Your task to perform on an android device: turn off priority inbox in the gmail app Image 0: 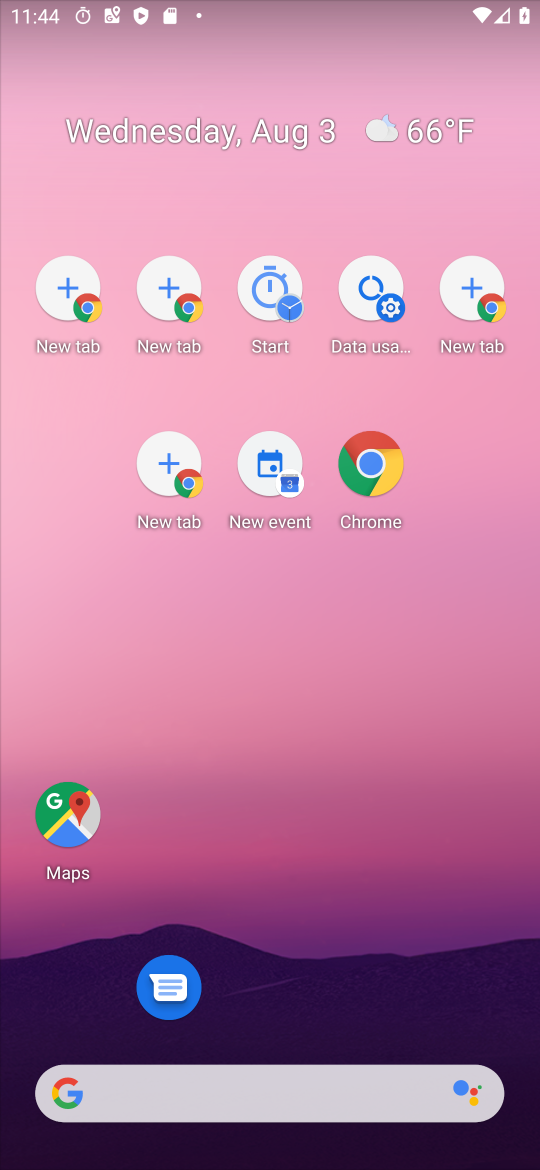
Step 0: drag from (348, 795) to (287, 431)
Your task to perform on an android device: turn off priority inbox in the gmail app Image 1: 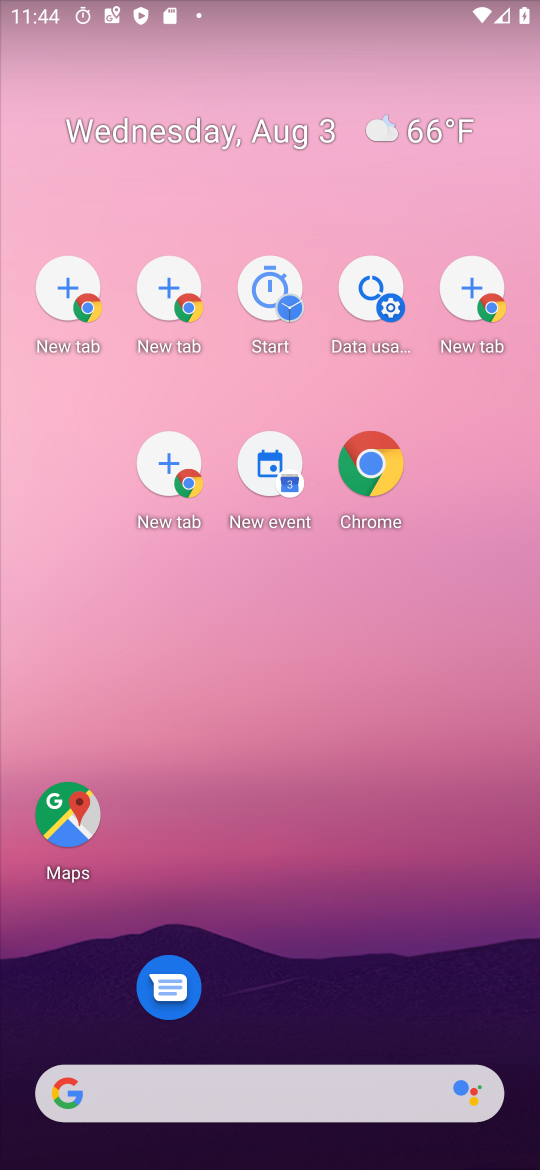
Step 1: drag from (285, 445) to (272, 359)
Your task to perform on an android device: turn off priority inbox in the gmail app Image 2: 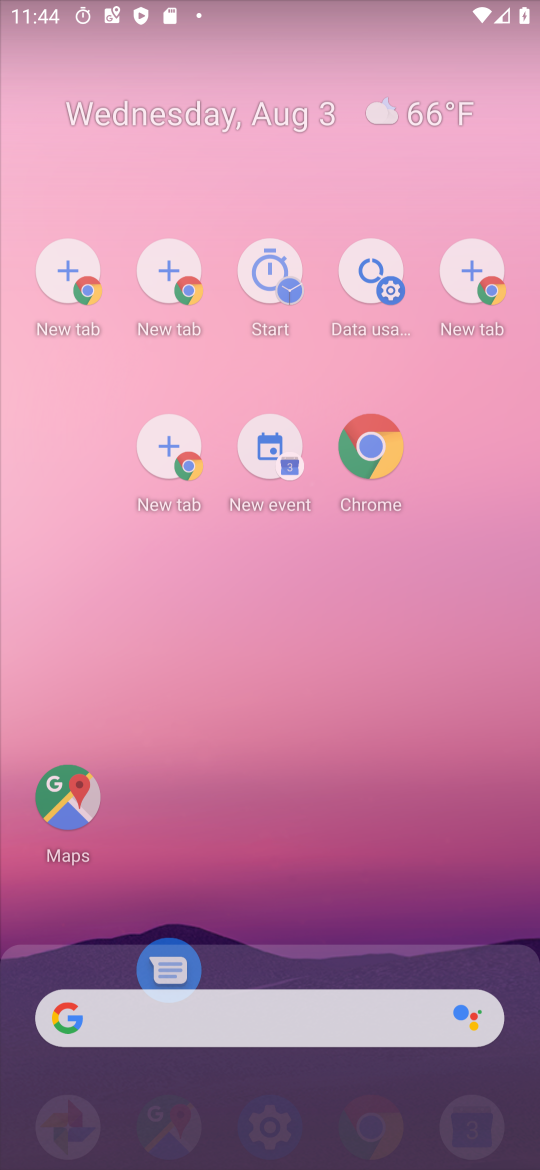
Step 2: drag from (313, 979) to (248, 55)
Your task to perform on an android device: turn off priority inbox in the gmail app Image 3: 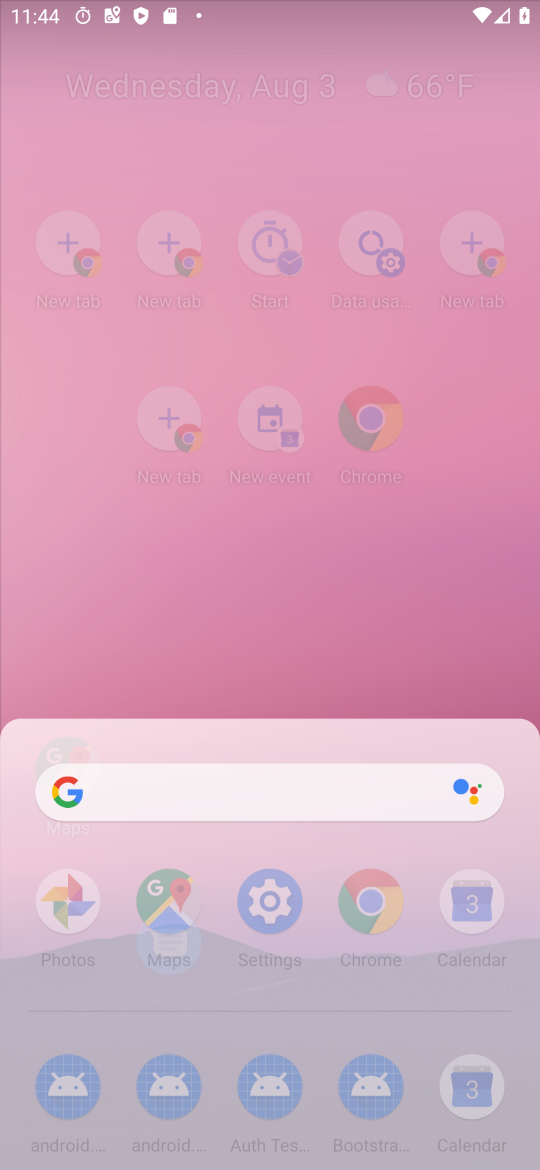
Step 3: drag from (365, 692) to (309, 11)
Your task to perform on an android device: turn off priority inbox in the gmail app Image 4: 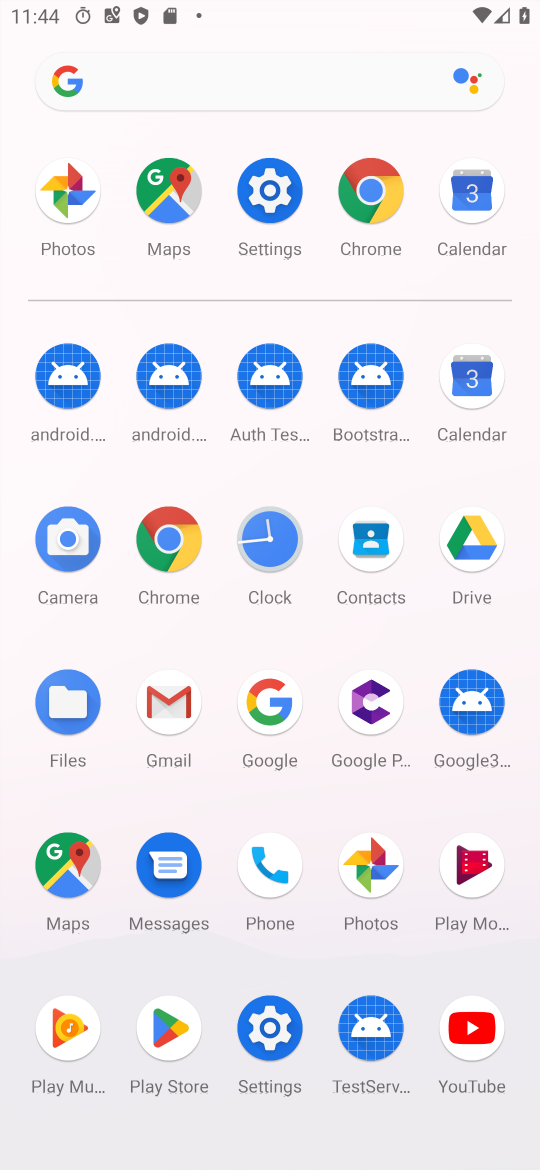
Step 4: click (178, 696)
Your task to perform on an android device: turn off priority inbox in the gmail app Image 5: 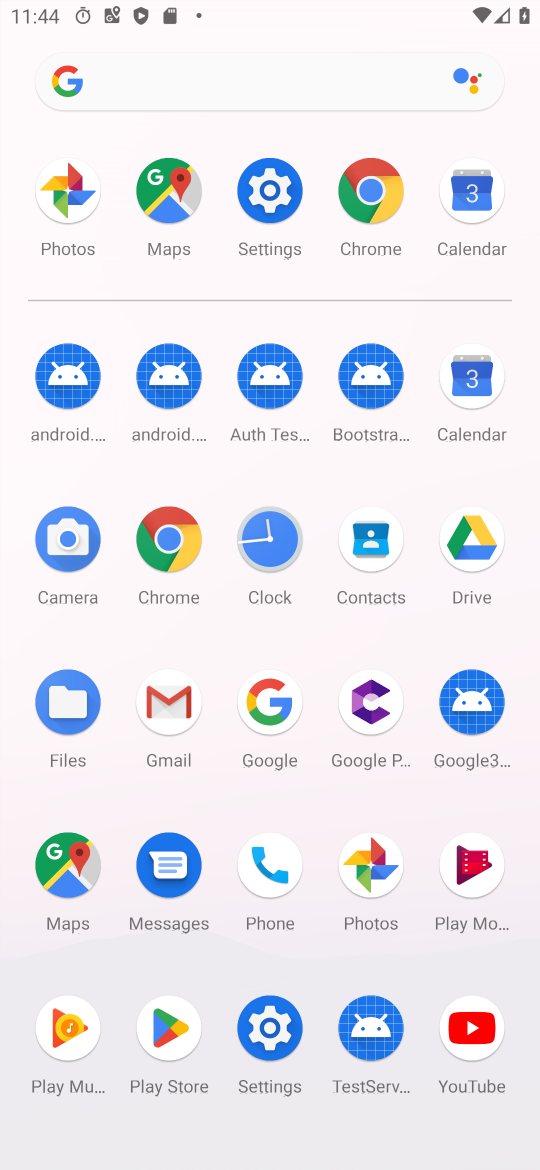
Step 5: click (176, 696)
Your task to perform on an android device: turn off priority inbox in the gmail app Image 6: 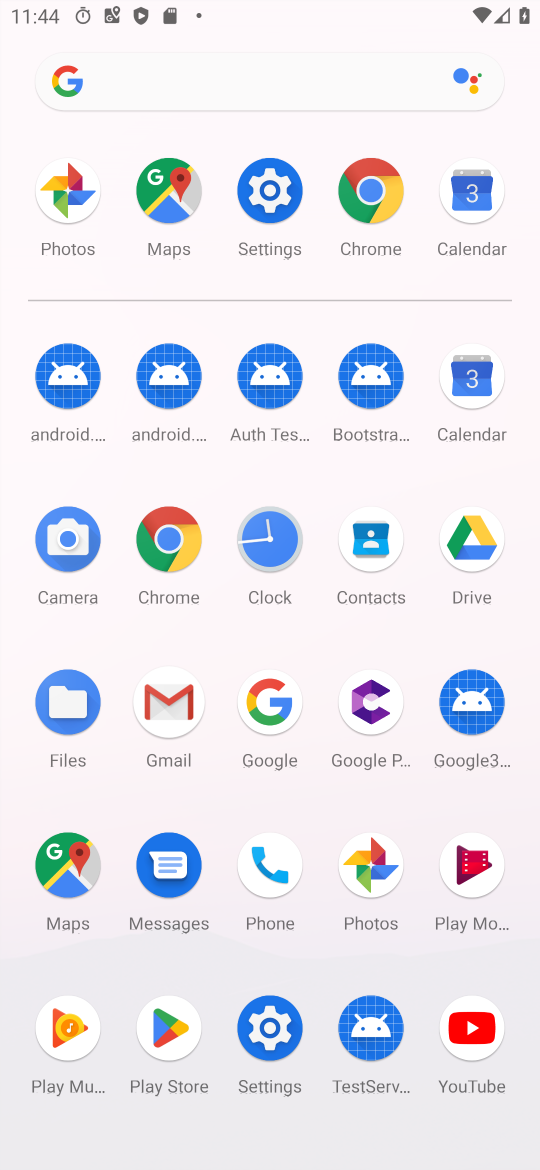
Step 6: click (175, 697)
Your task to perform on an android device: turn off priority inbox in the gmail app Image 7: 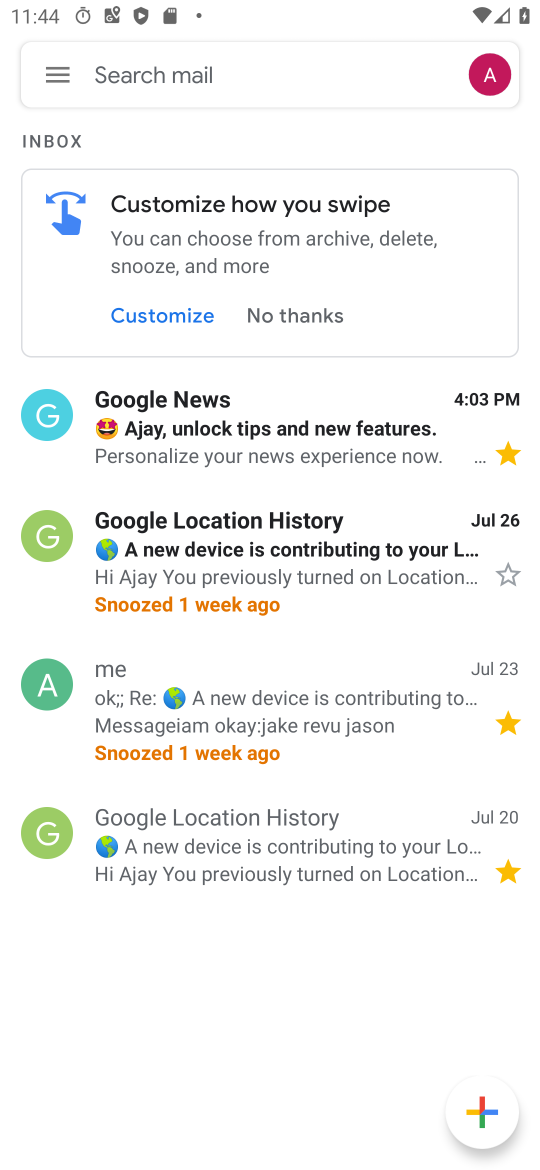
Step 7: click (53, 81)
Your task to perform on an android device: turn off priority inbox in the gmail app Image 8: 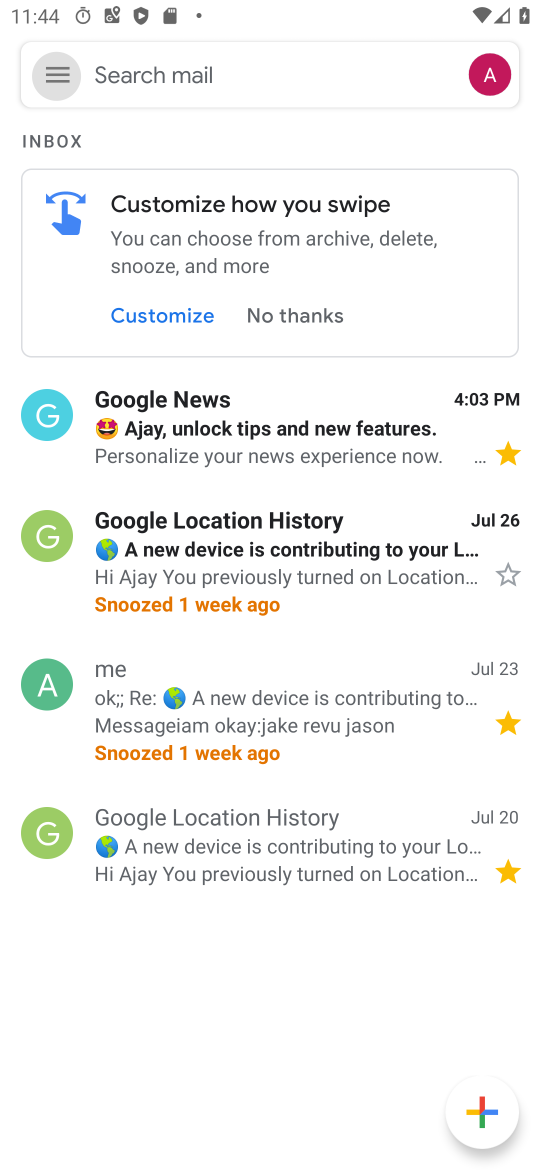
Step 8: click (55, 76)
Your task to perform on an android device: turn off priority inbox in the gmail app Image 9: 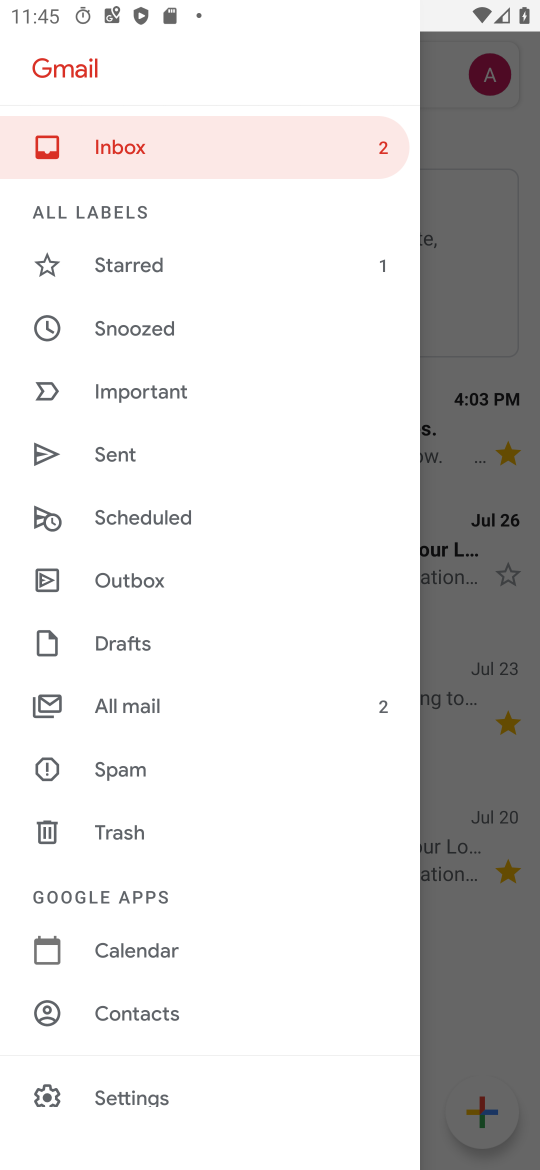
Step 9: drag from (174, 865) to (119, 215)
Your task to perform on an android device: turn off priority inbox in the gmail app Image 10: 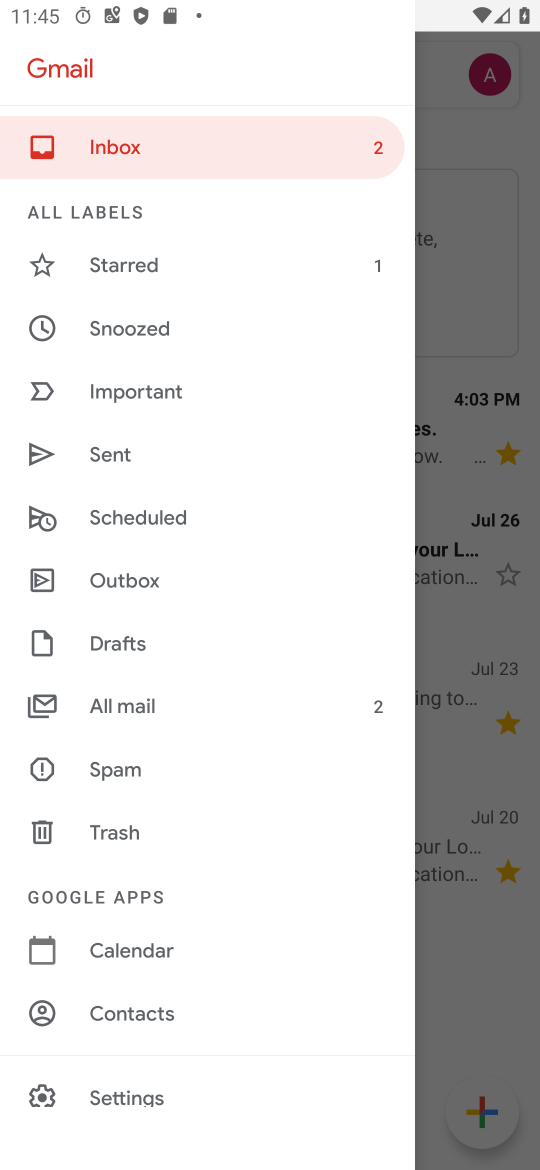
Step 10: drag from (183, 734) to (203, 203)
Your task to perform on an android device: turn off priority inbox in the gmail app Image 11: 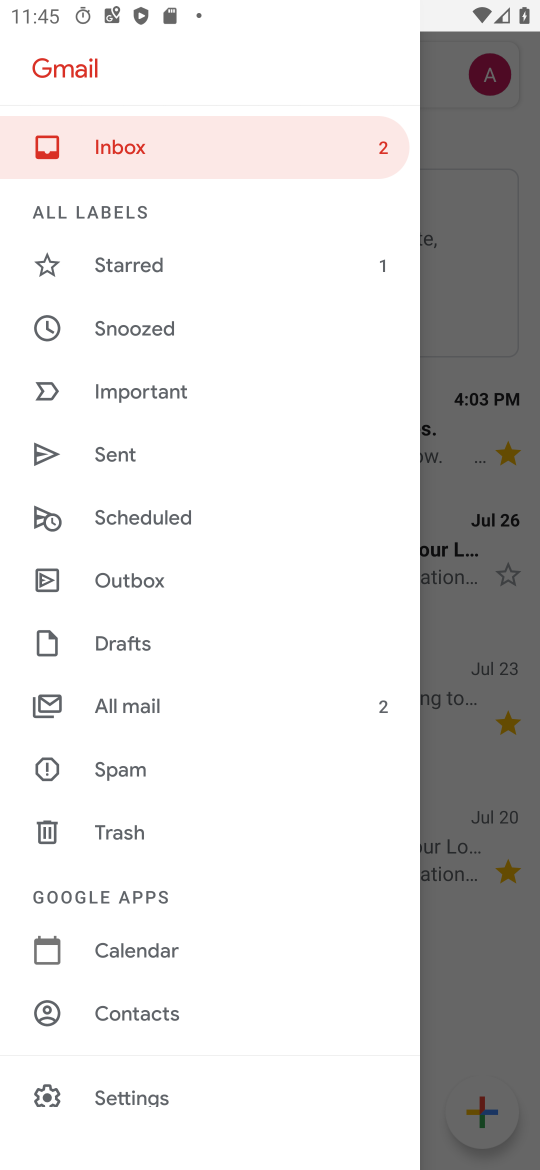
Step 11: drag from (199, 950) to (215, 685)
Your task to perform on an android device: turn off priority inbox in the gmail app Image 12: 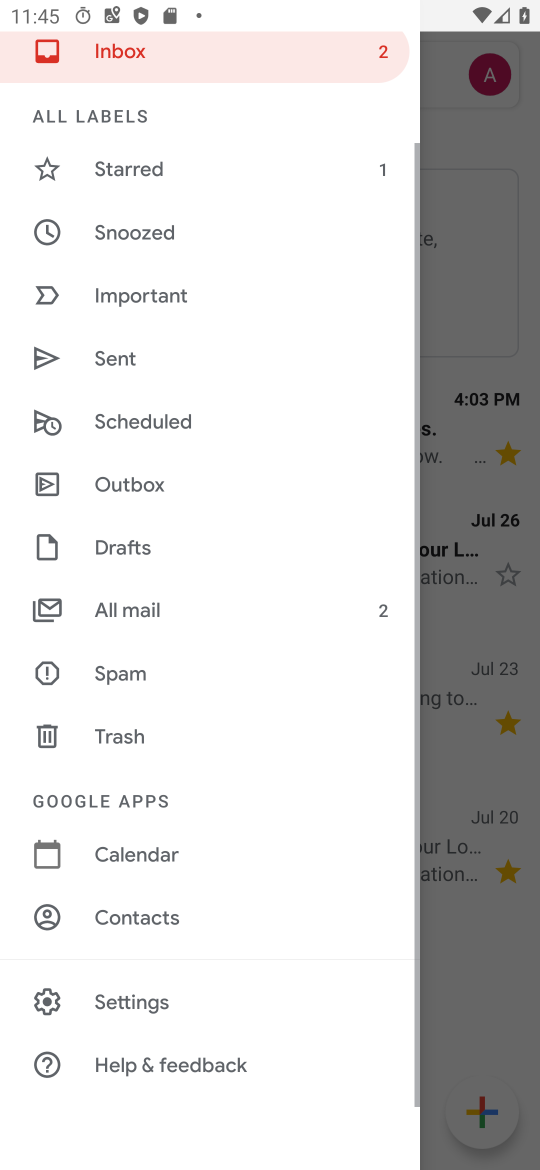
Step 12: click (119, 1088)
Your task to perform on an android device: turn off priority inbox in the gmail app Image 13: 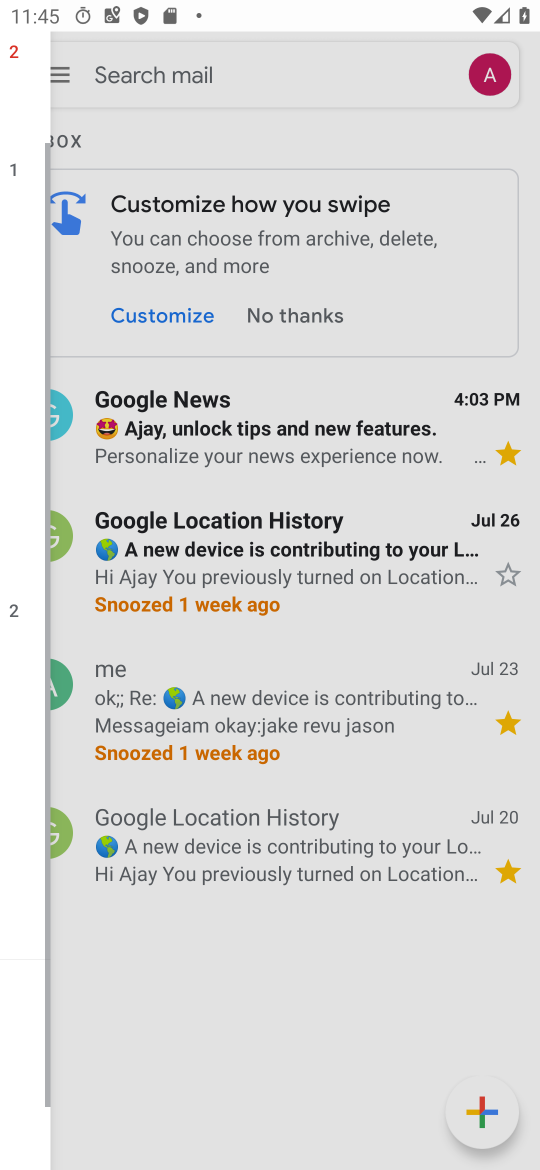
Step 13: click (135, 989)
Your task to perform on an android device: turn off priority inbox in the gmail app Image 14: 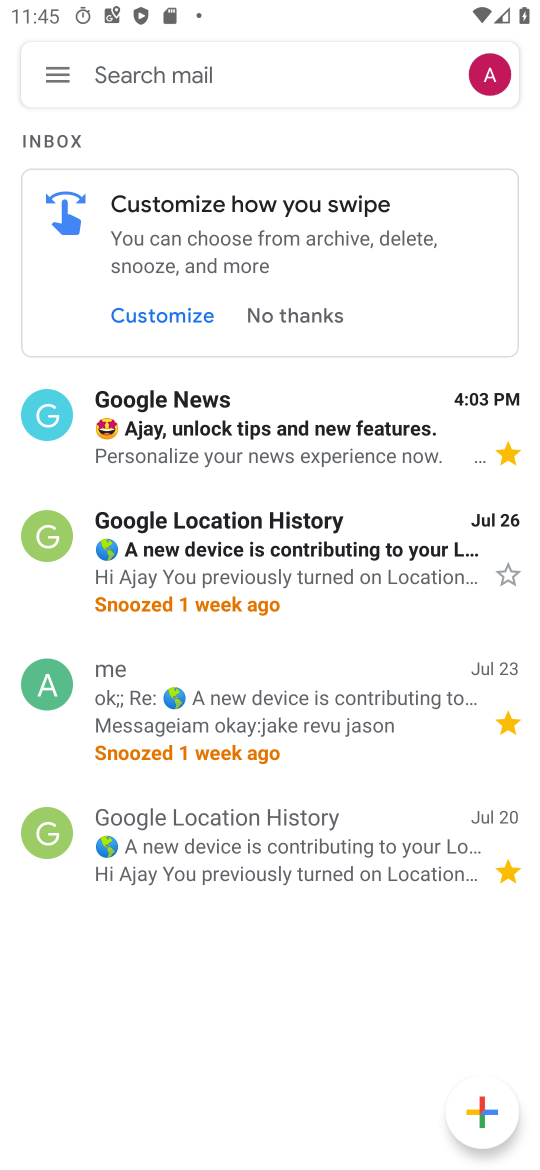
Step 14: click (50, 78)
Your task to perform on an android device: turn off priority inbox in the gmail app Image 15: 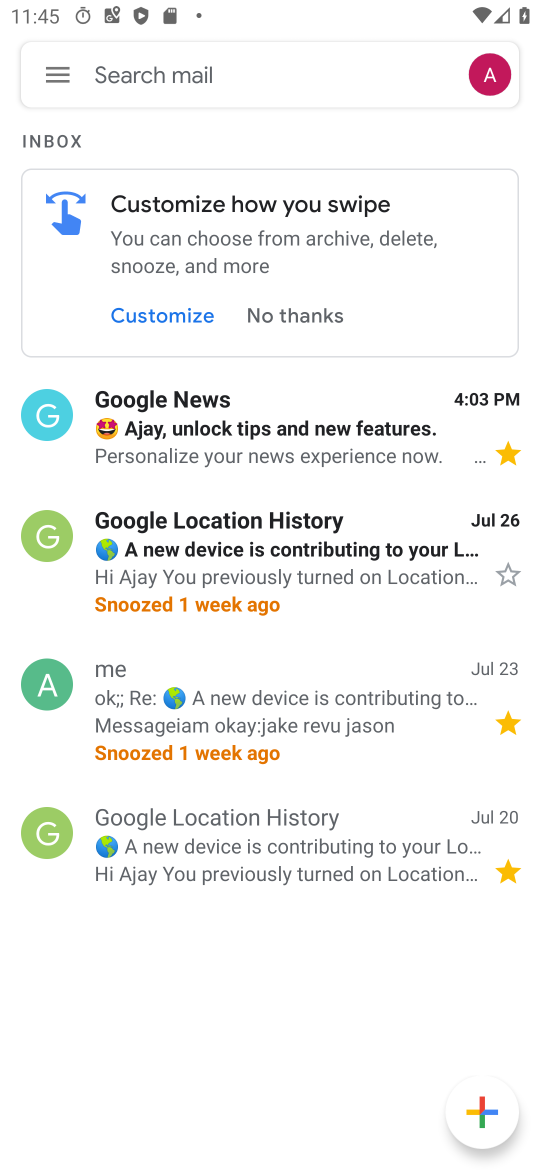
Step 15: click (61, 73)
Your task to perform on an android device: turn off priority inbox in the gmail app Image 16: 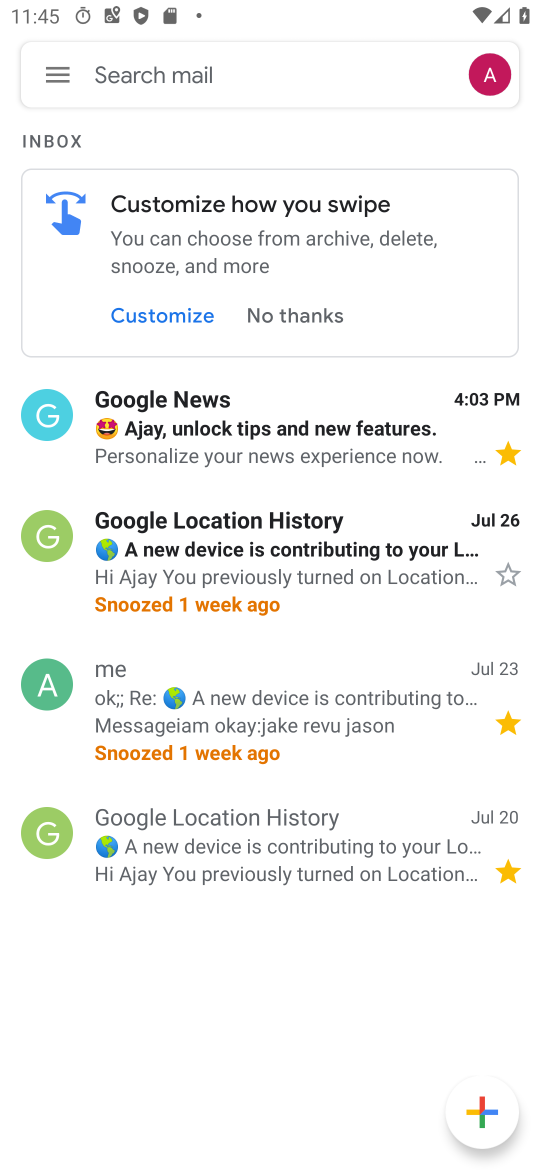
Step 16: click (63, 71)
Your task to perform on an android device: turn off priority inbox in the gmail app Image 17: 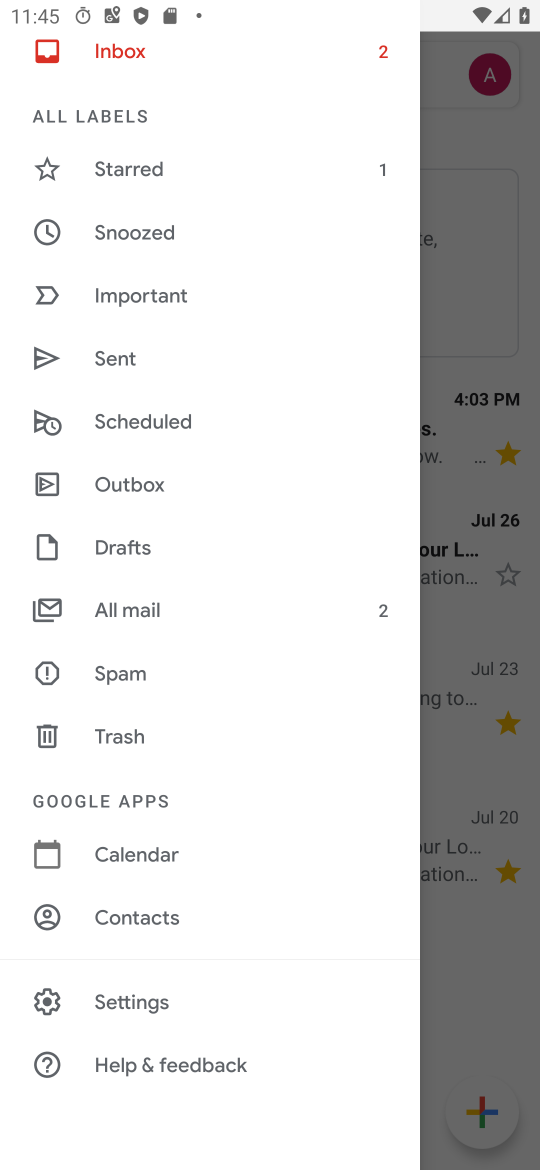
Step 17: click (145, 1002)
Your task to perform on an android device: turn off priority inbox in the gmail app Image 18: 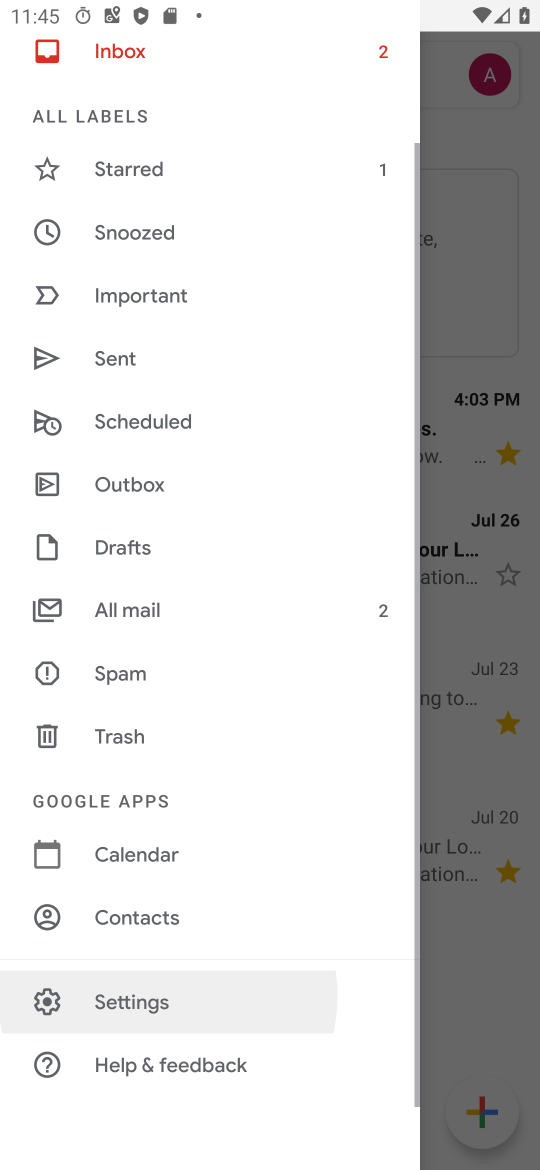
Step 18: click (145, 1002)
Your task to perform on an android device: turn off priority inbox in the gmail app Image 19: 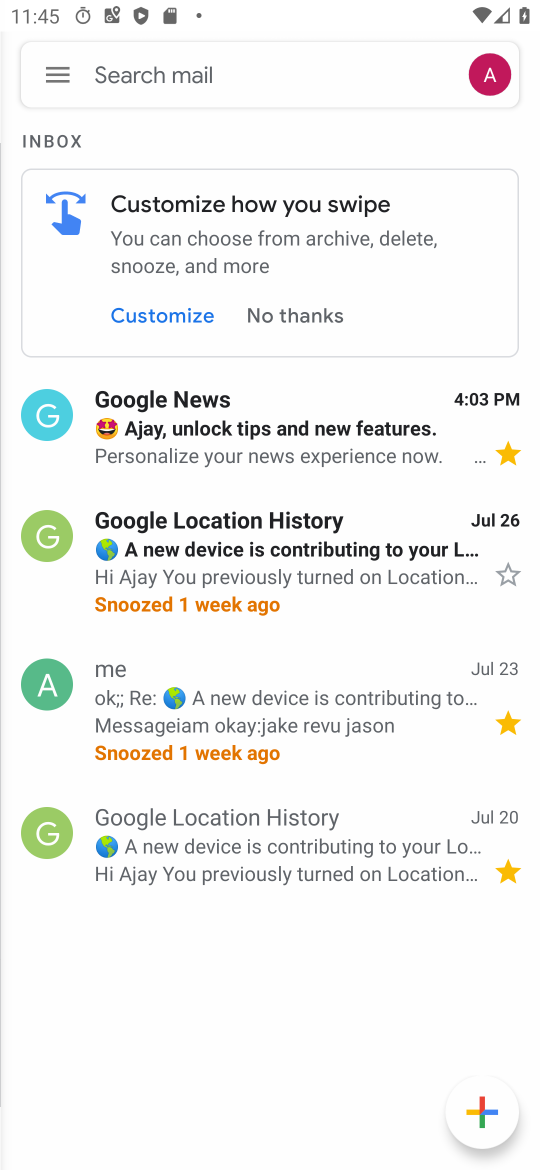
Step 19: click (145, 1002)
Your task to perform on an android device: turn off priority inbox in the gmail app Image 20: 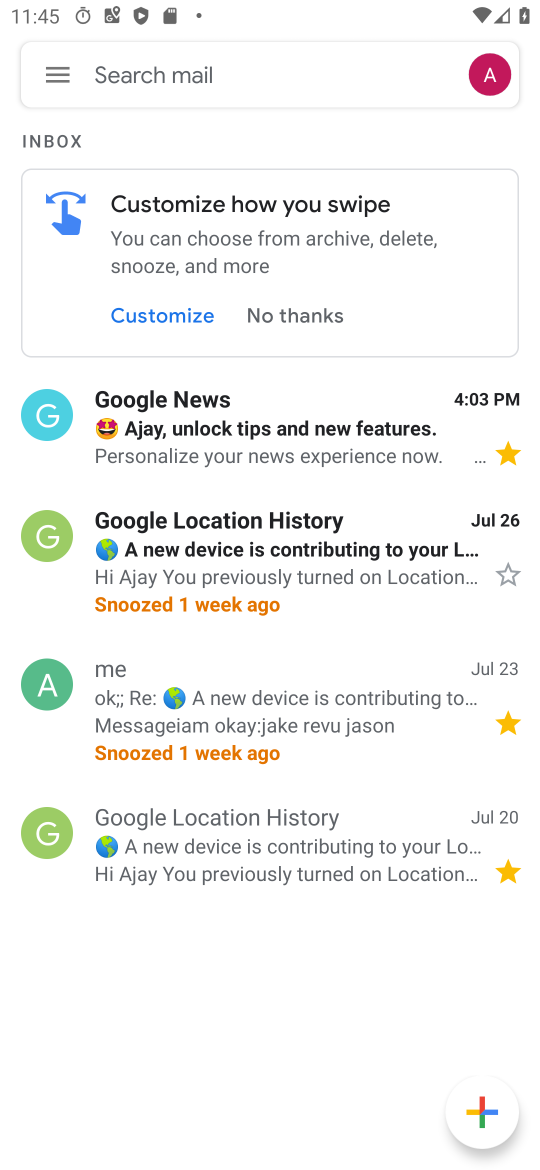
Step 20: click (145, 1002)
Your task to perform on an android device: turn off priority inbox in the gmail app Image 21: 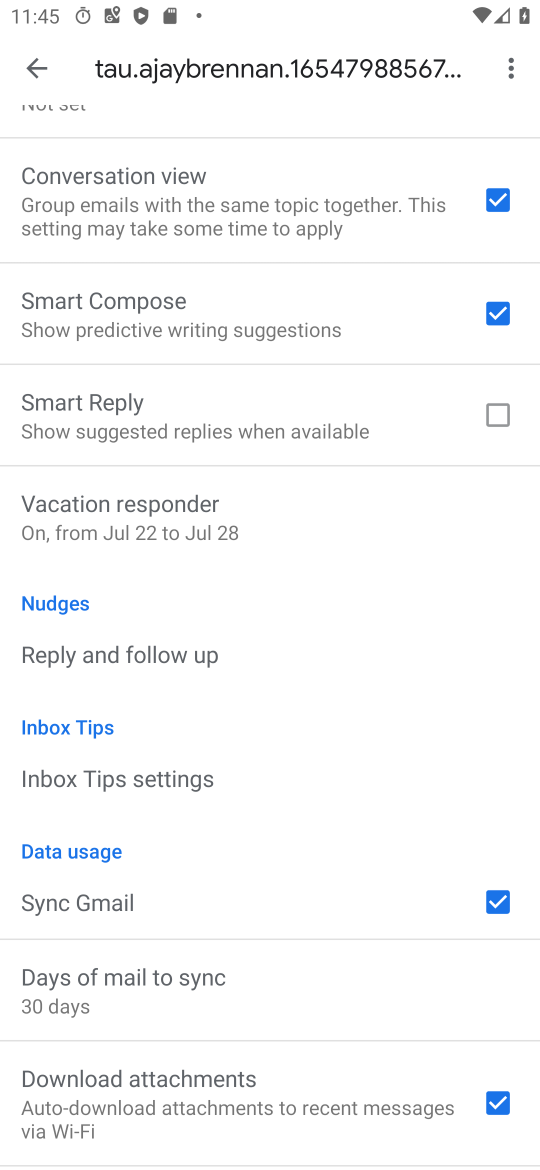
Step 21: drag from (167, 854) to (103, 408)
Your task to perform on an android device: turn off priority inbox in the gmail app Image 22: 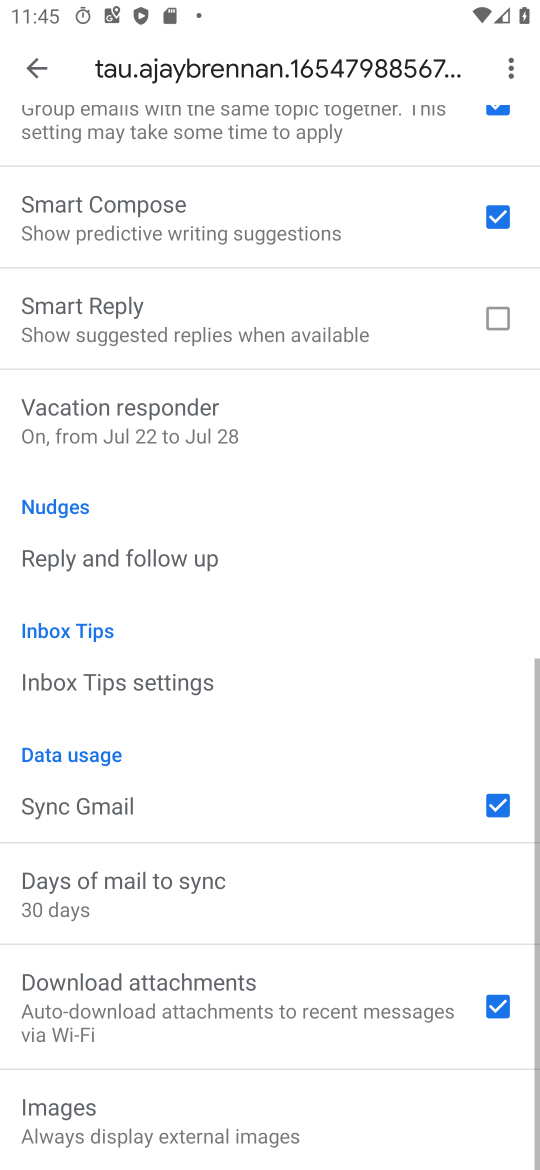
Step 22: drag from (134, 769) to (143, 354)
Your task to perform on an android device: turn off priority inbox in the gmail app Image 23: 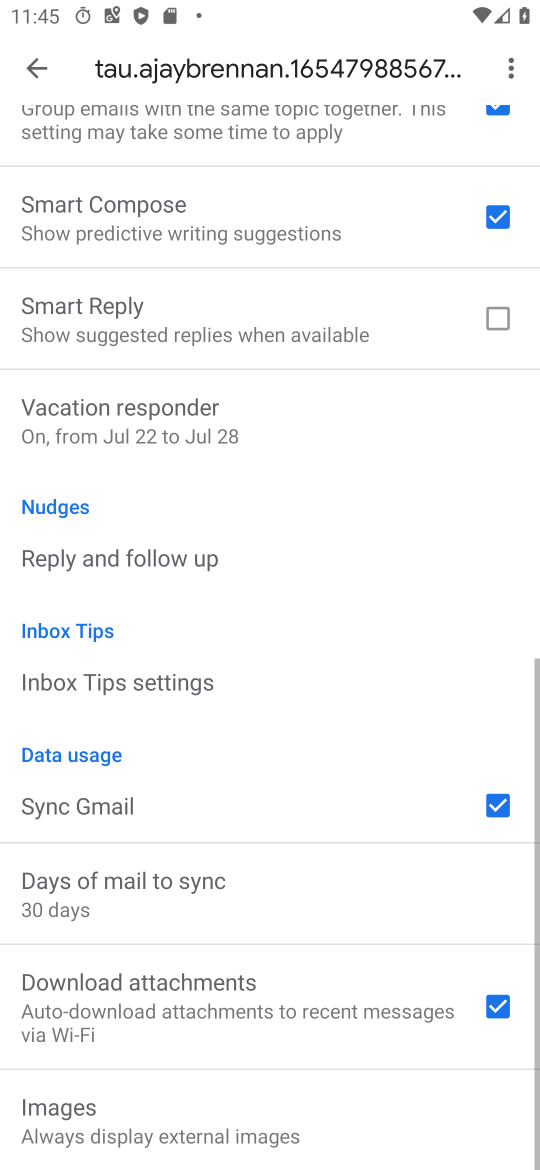
Step 23: drag from (153, 265) to (127, 928)
Your task to perform on an android device: turn off priority inbox in the gmail app Image 24: 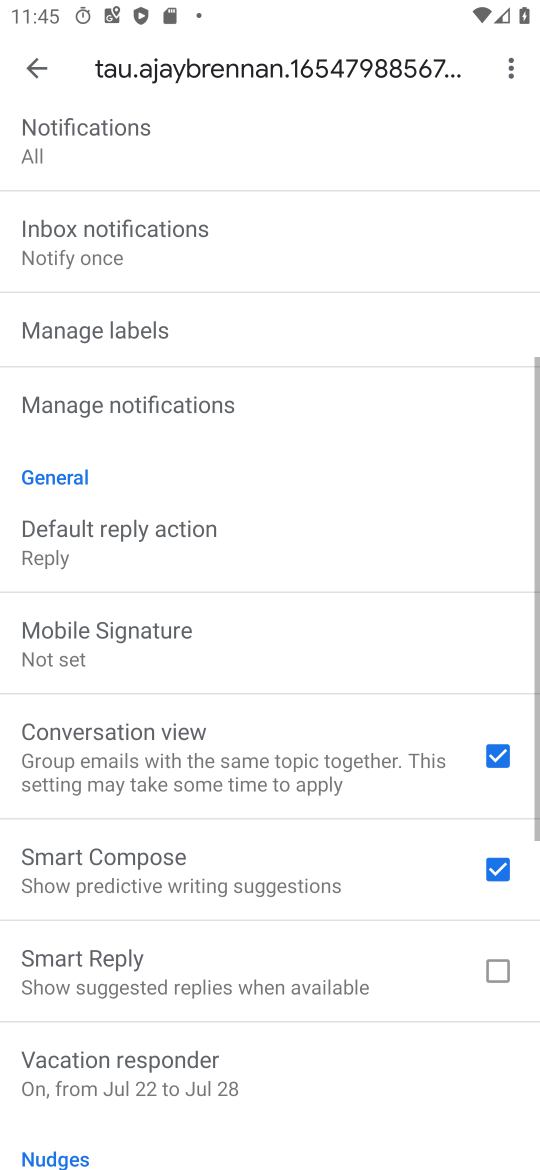
Step 24: drag from (157, 479) to (193, 1161)
Your task to perform on an android device: turn off priority inbox in the gmail app Image 25: 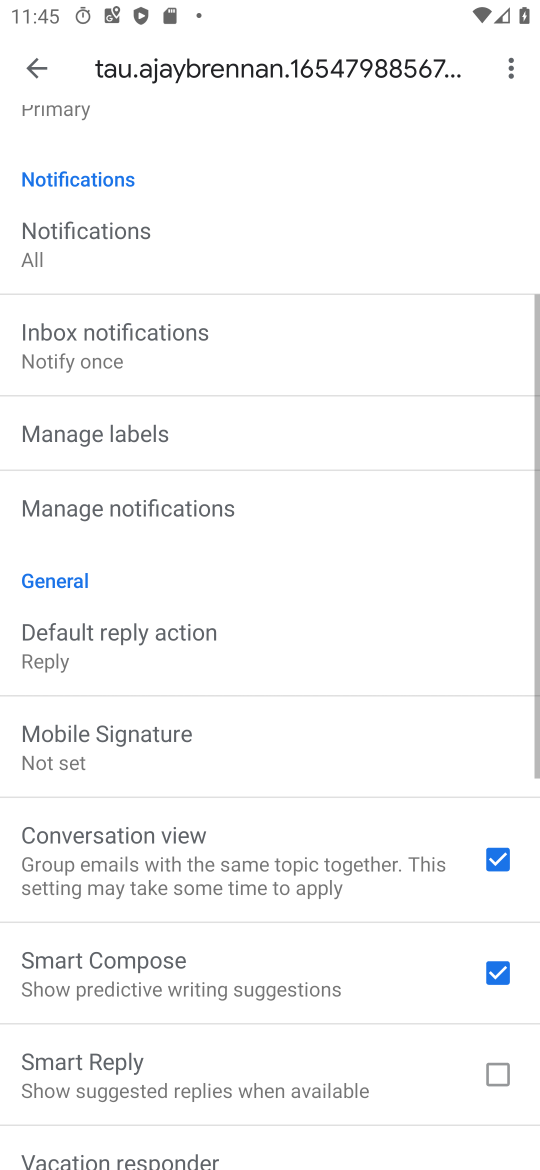
Step 25: drag from (196, 660) to (243, 1163)
Your task to perform on an android device: turn off priority inbox in the gmail app Image 26: 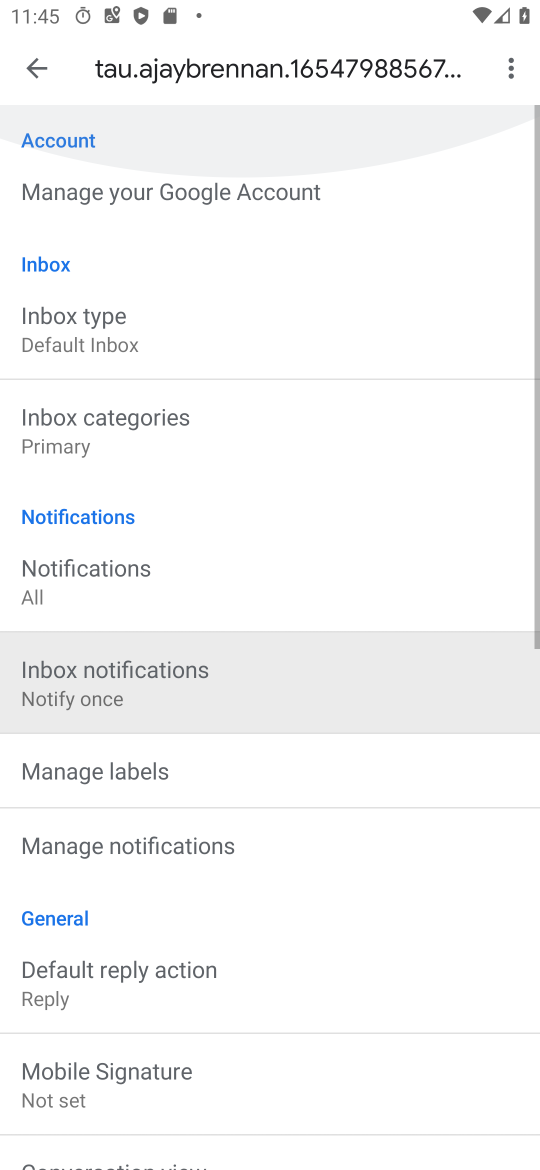
Step 26: drag from (173, 450) to (209, 1089)
Your task to perform on an android device: turn off priority inbox in the gmail app Image 27: 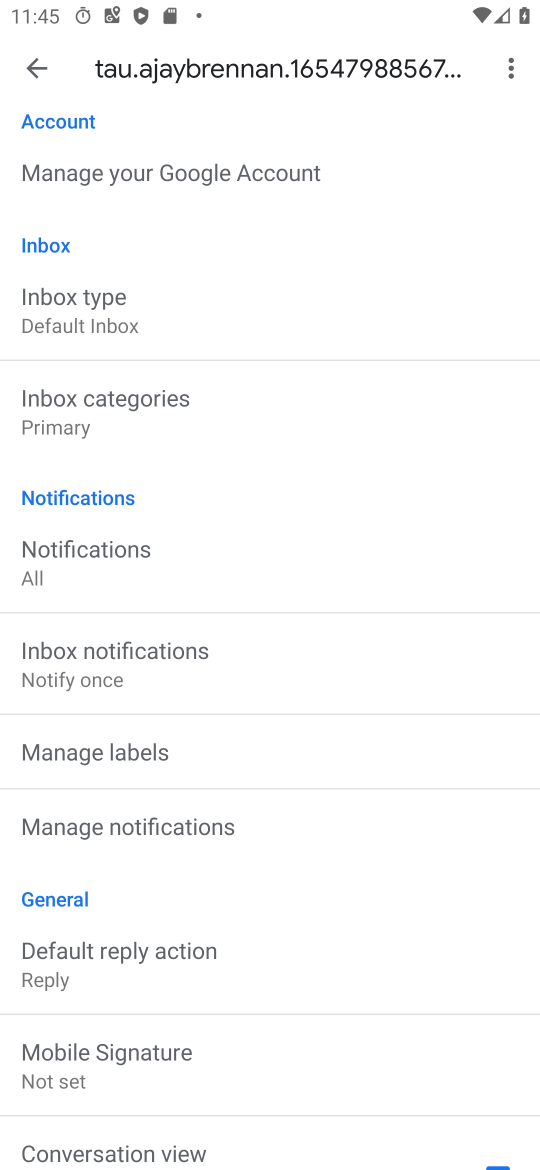
Step 27: click (71, 311)
Your task to perform on an android device: turn off priority inbox in the gmail app Image 28: 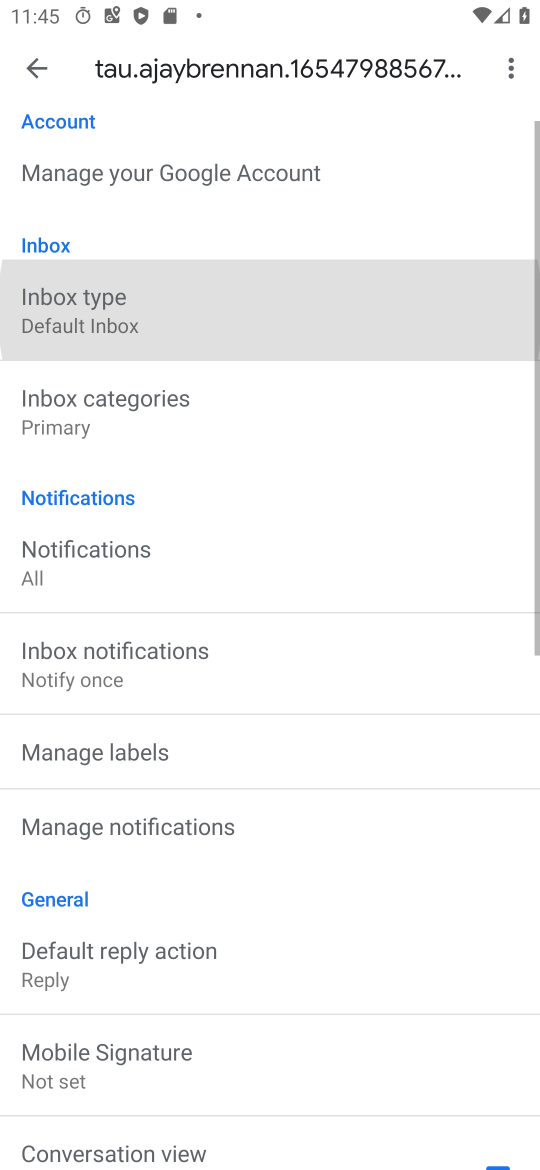
Step 28: click (71, 311)
Your task to perform on an android device: turn off priority inbox in the gmail app Image 29: 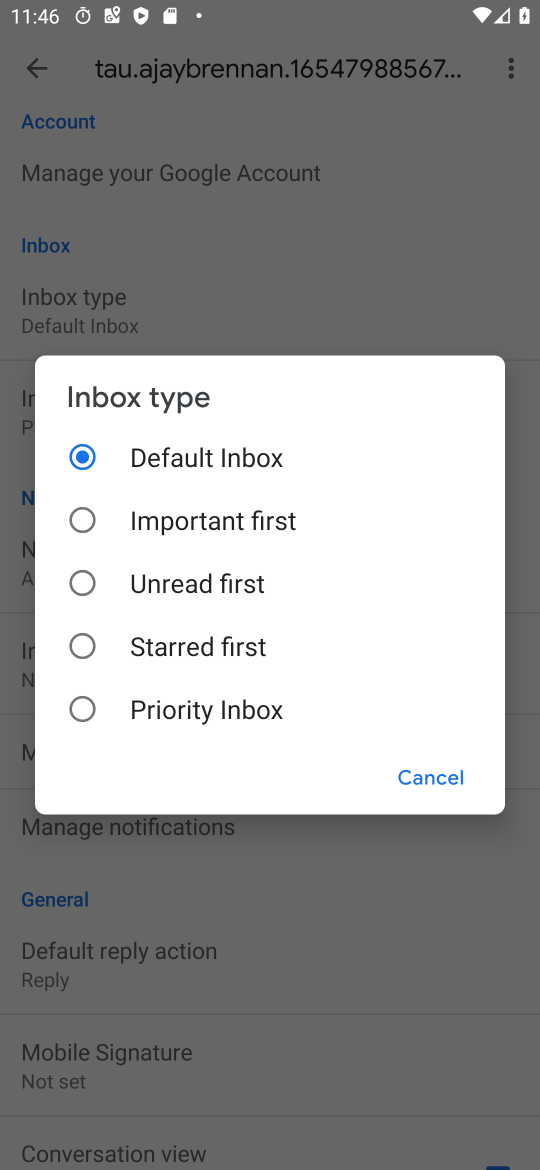
Step 29: click (422, 769)
Your task to perform on an android device: turn off priority inbox in the gmail app Image 30: 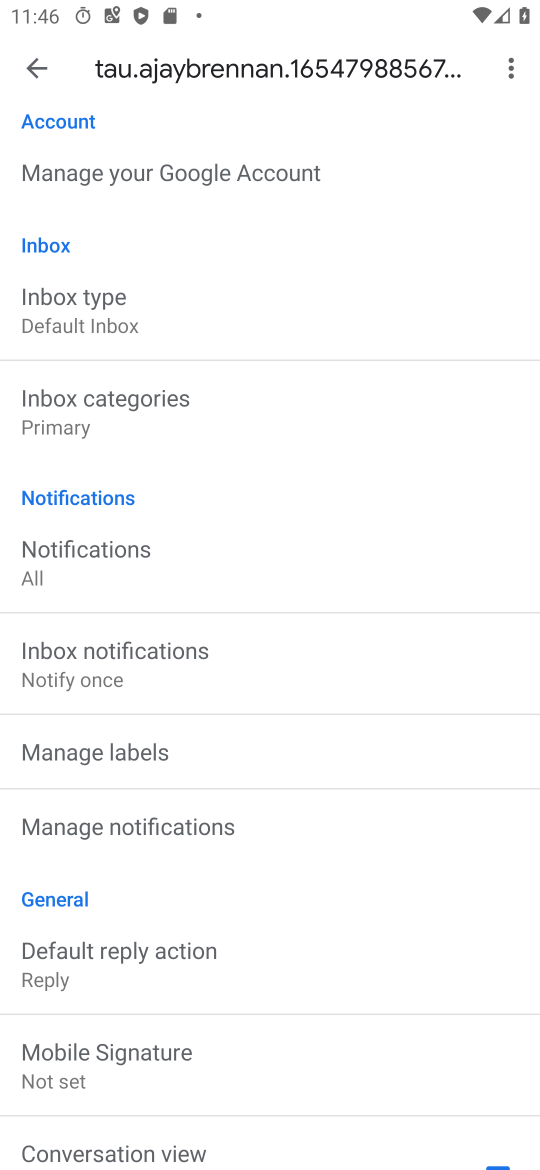
Step 30: task complete